Your task to perform on an android device: toggle location history Image 0: 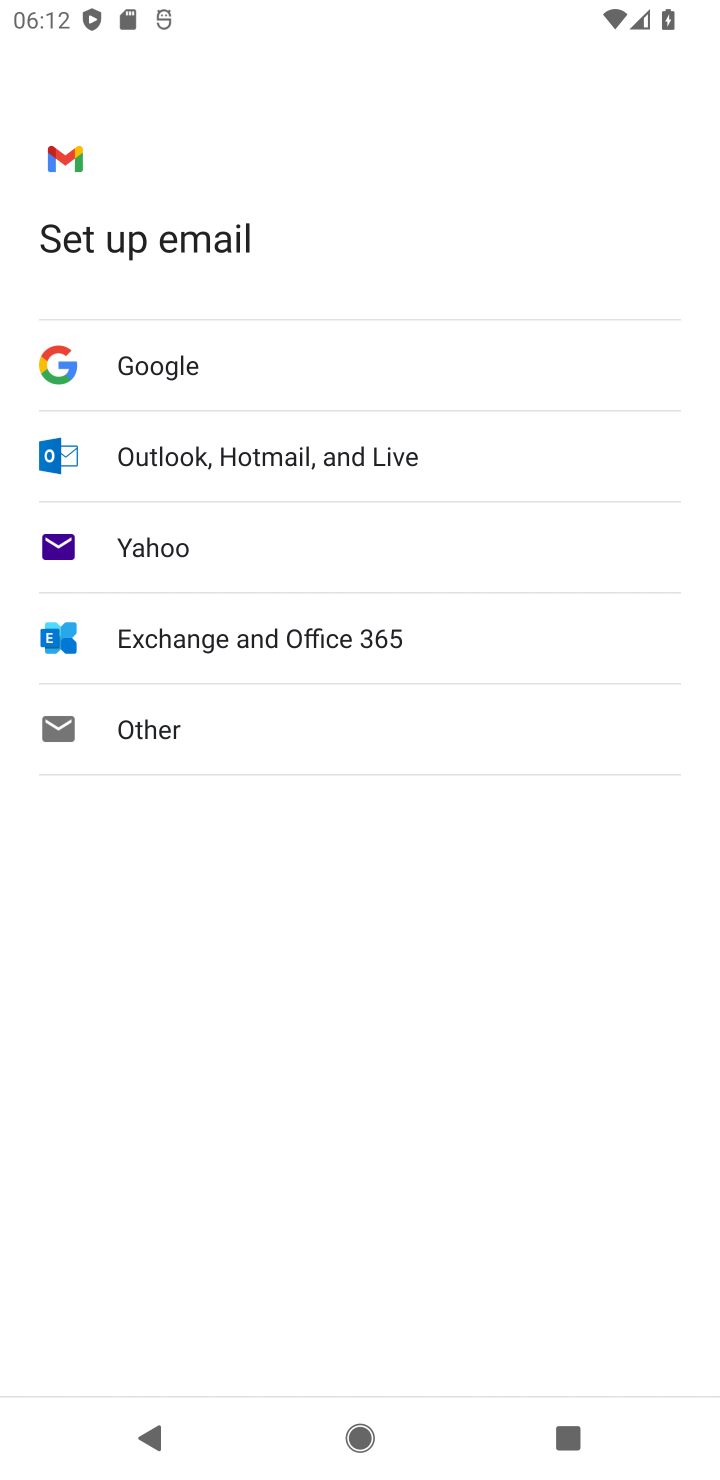
Step 0: press home button
Your task to perform on an android device: toggle location history Image 1: 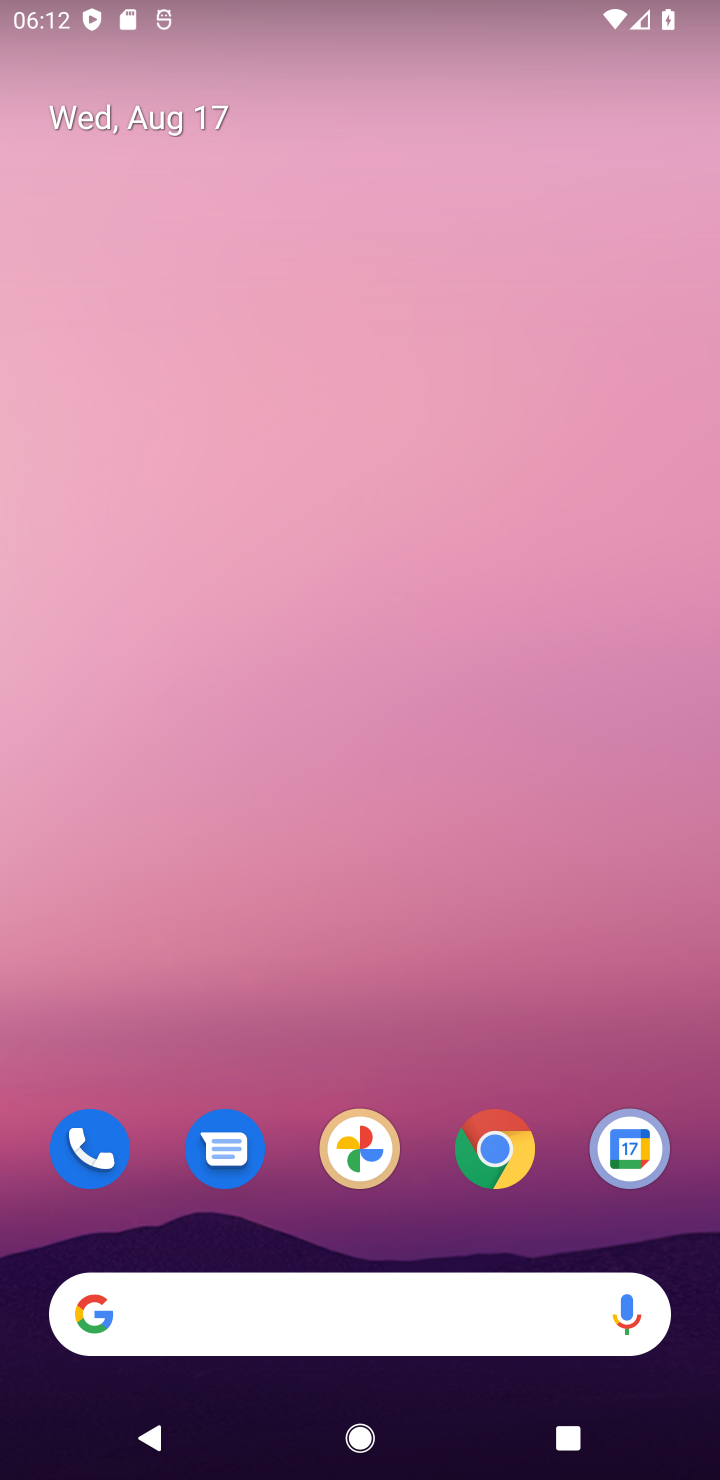
Step 1: drag from (467, 988) to (423, 18)
Your task to perform on an android device: toggle location history Image 2: 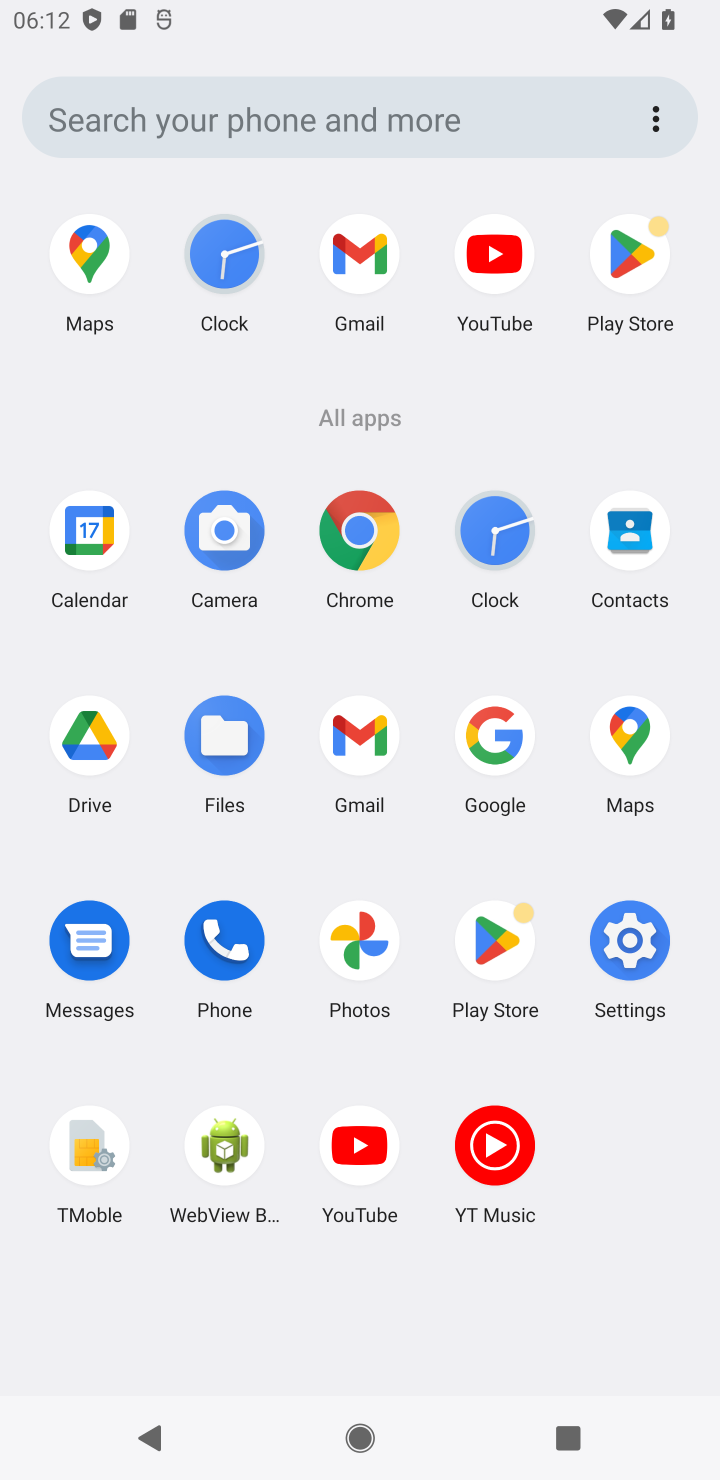
Step 2: click (629, 940)
Your task to perform on an android device: toggle location history Image 3: 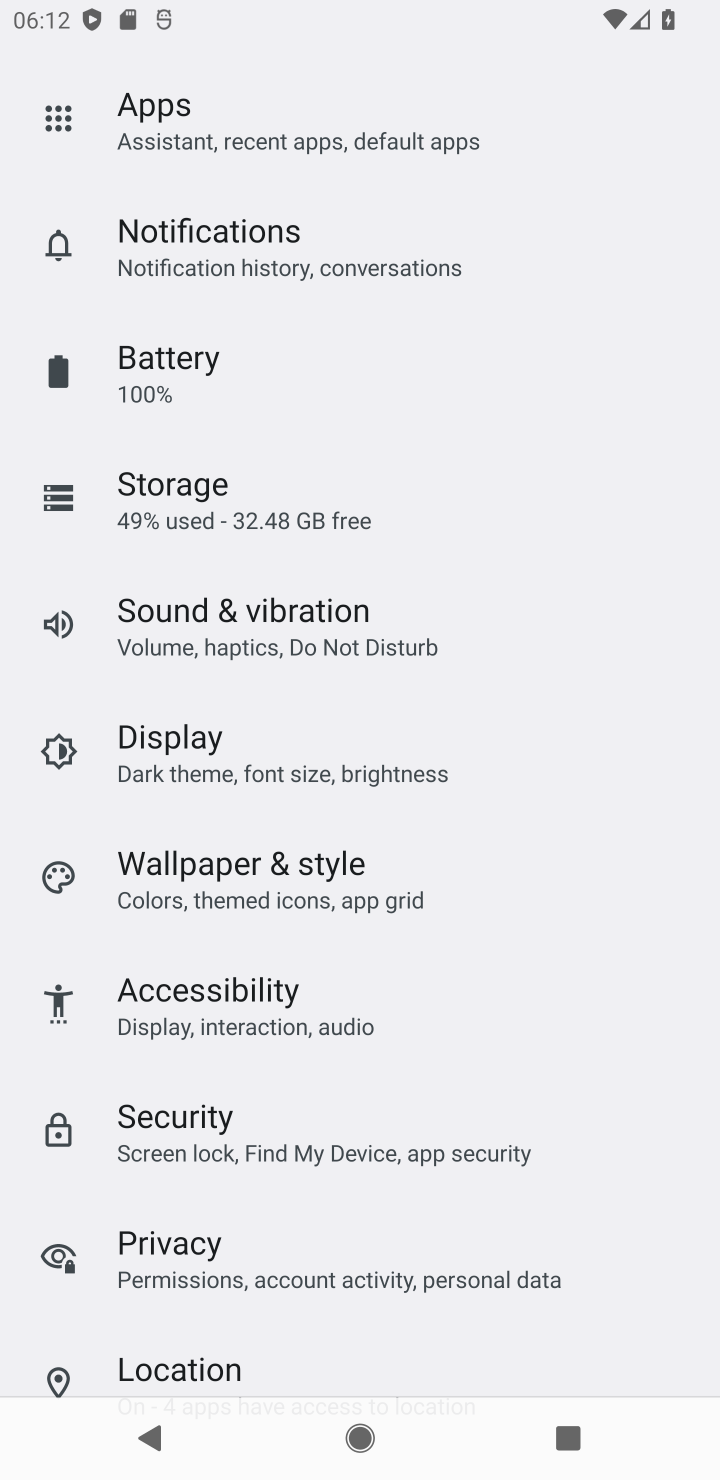
Step 3: click (216, 1360)
Your task to perform on an android device: toggle location history Image 4: 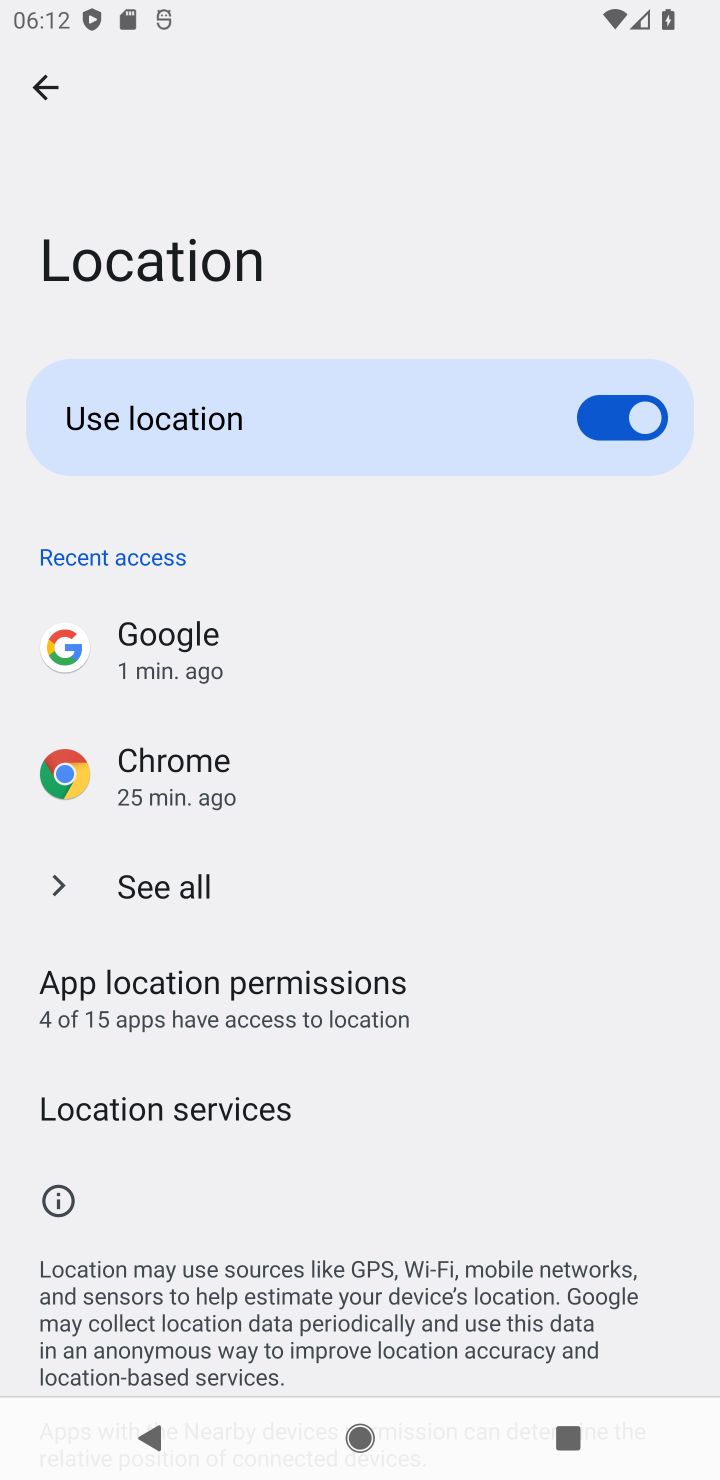
Step 4: click (135, 1114)
Your task to perform on an android device: toggle location history Image 5: 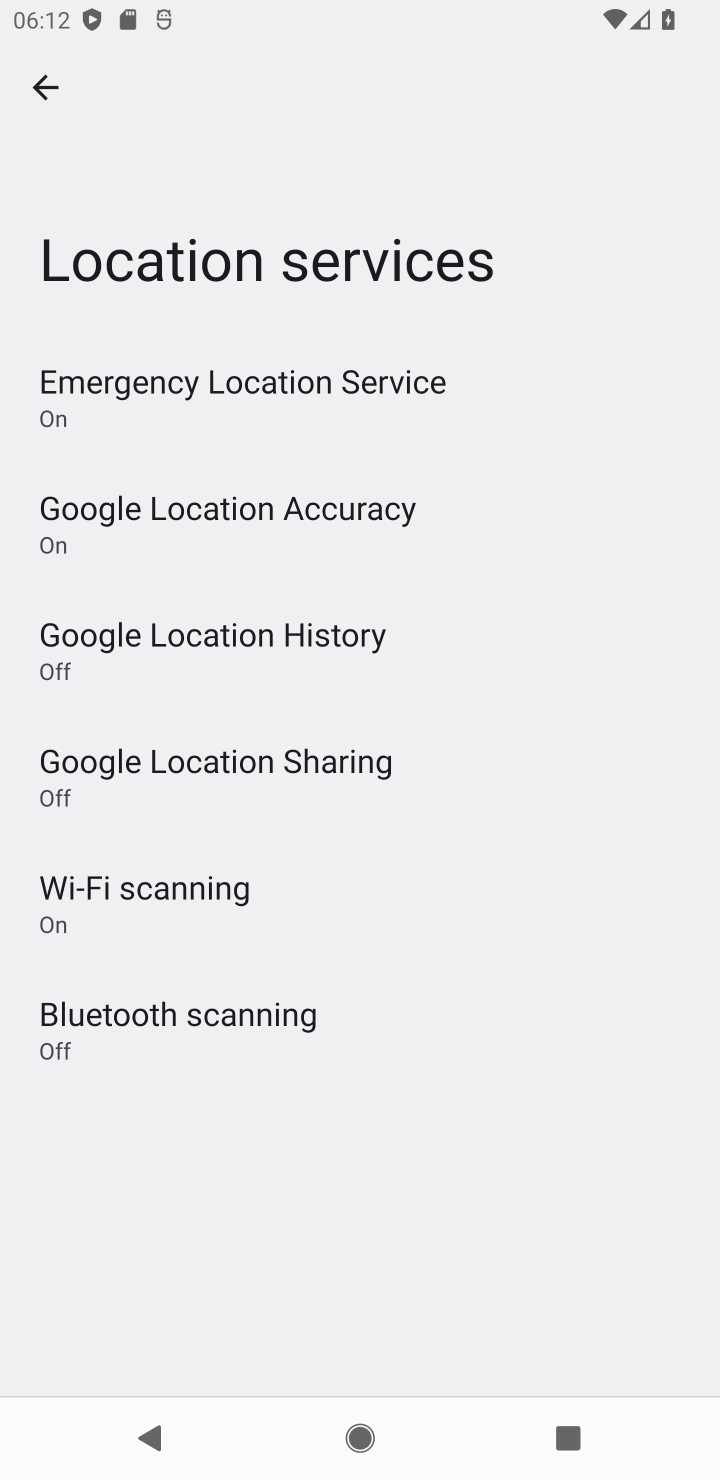
Step 5: click (207, 643)
Your task to perform on an android device: toggle location history Image 6: 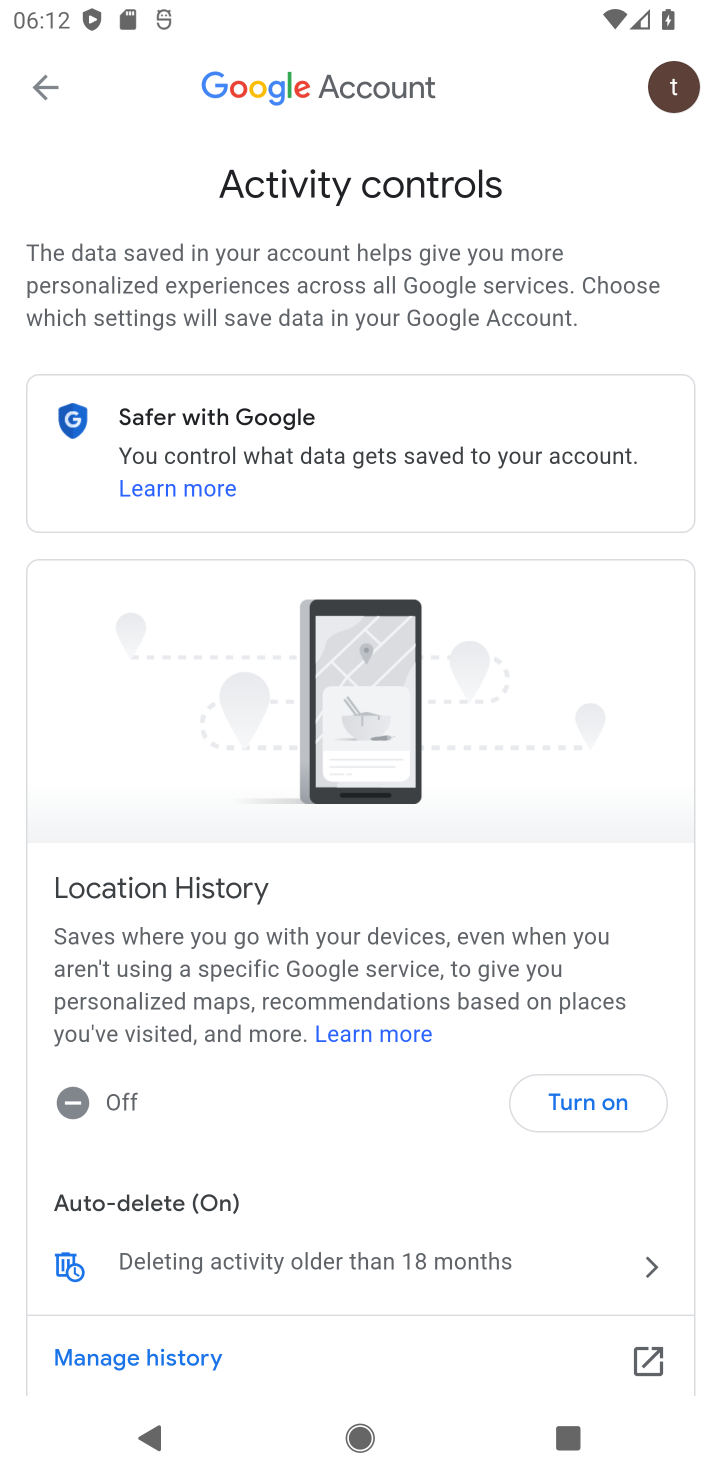
Step 6: click (568, 1099)
Your task to perform on an android device: toggle location history Image 7: 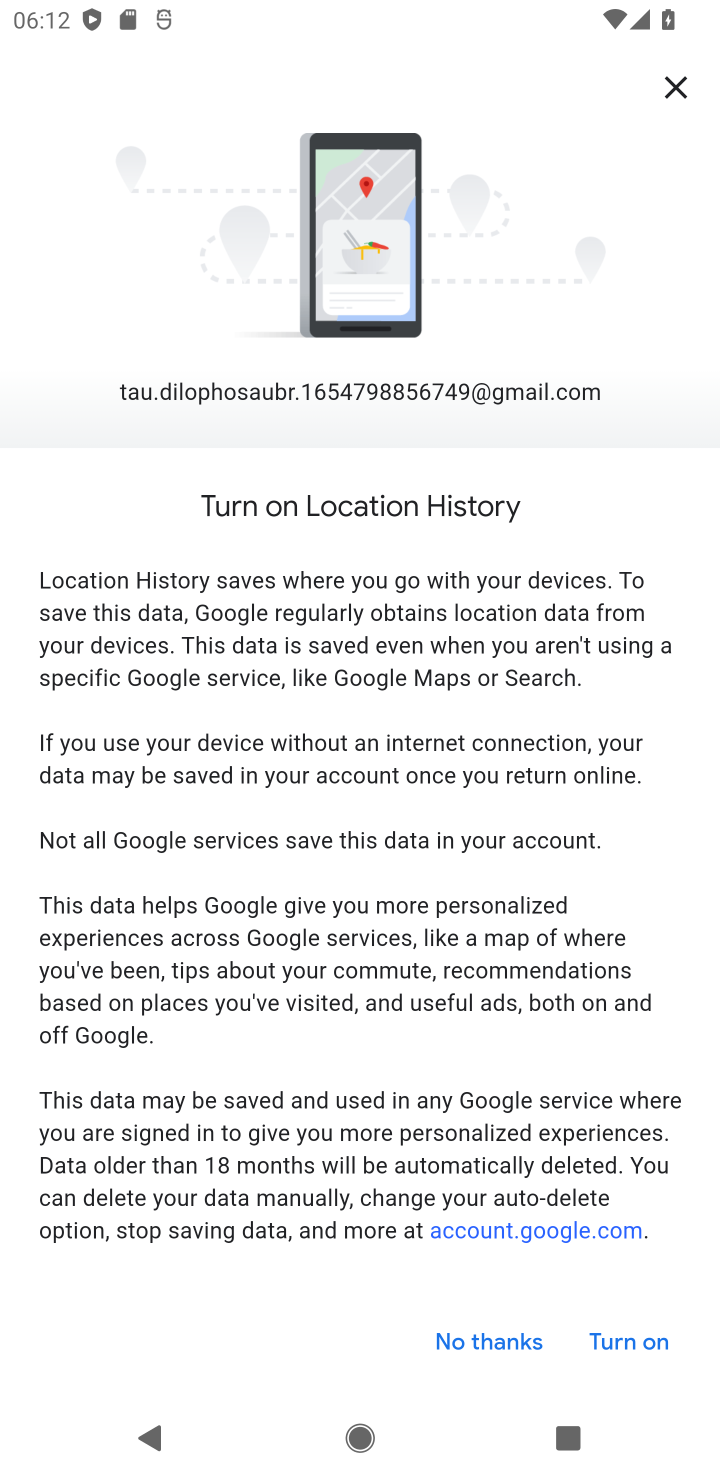
Step 7: click (624, 1333)
Your task to perform on an android device: toggle location history Image 8: 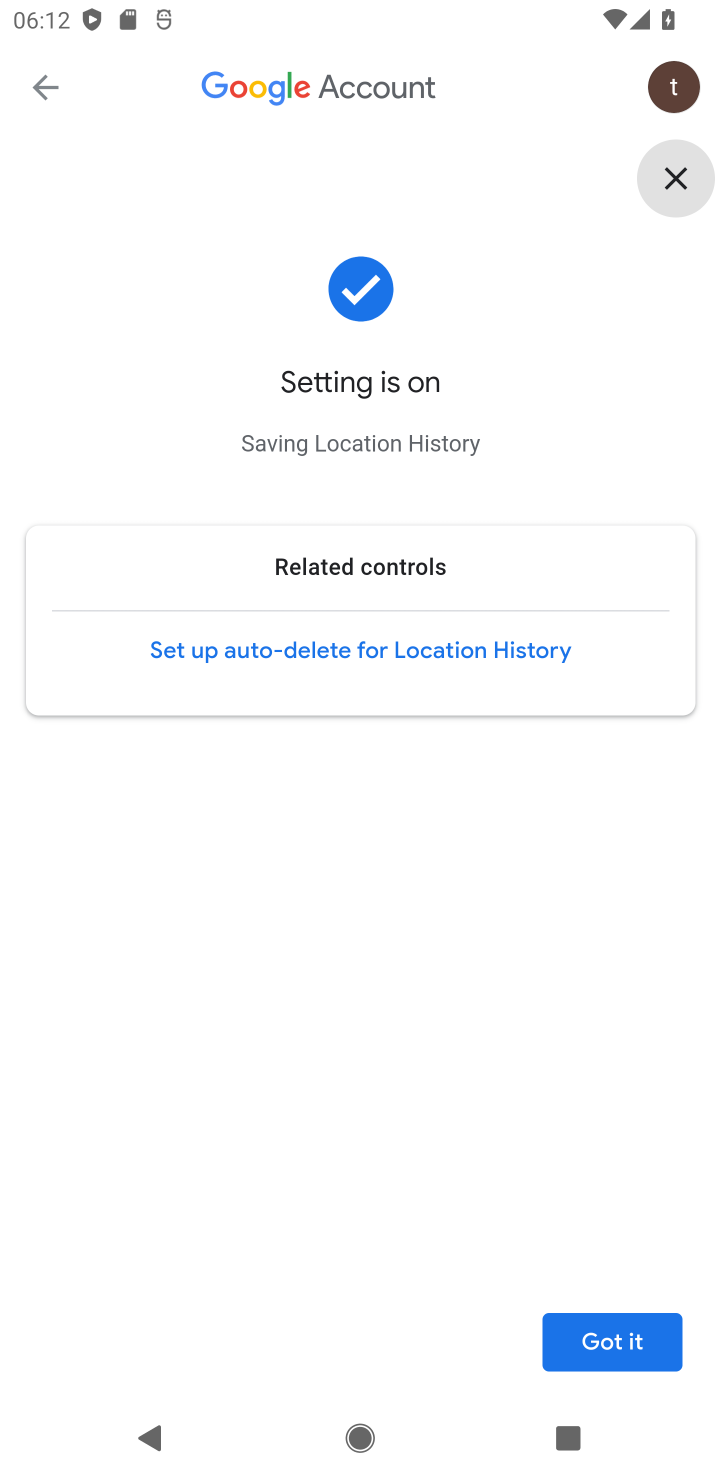
Step 8: click (607, 1340)
Your task to perform on an android device: toggle location history Image 9: 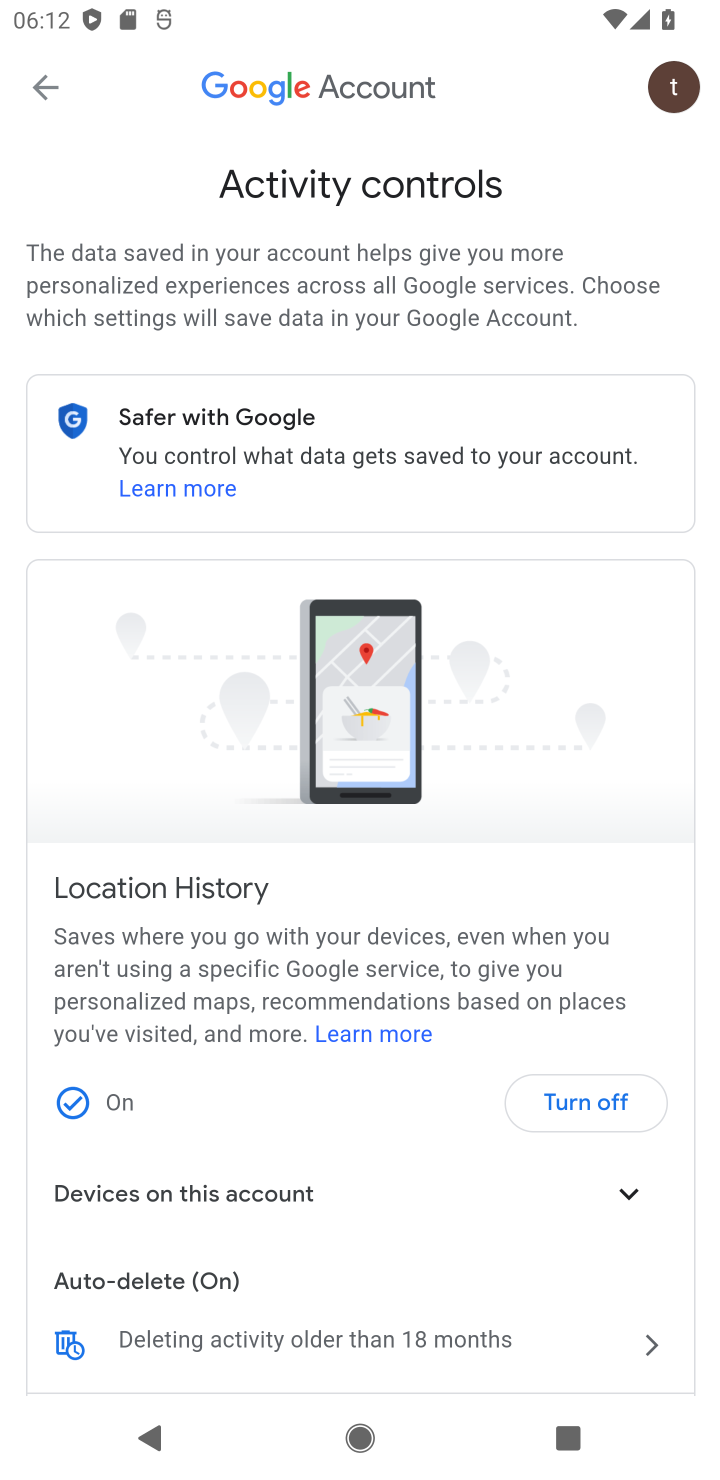
Step 9: task complete